Your task to perform on an android device: open app "Viber Messenger" Image 0: 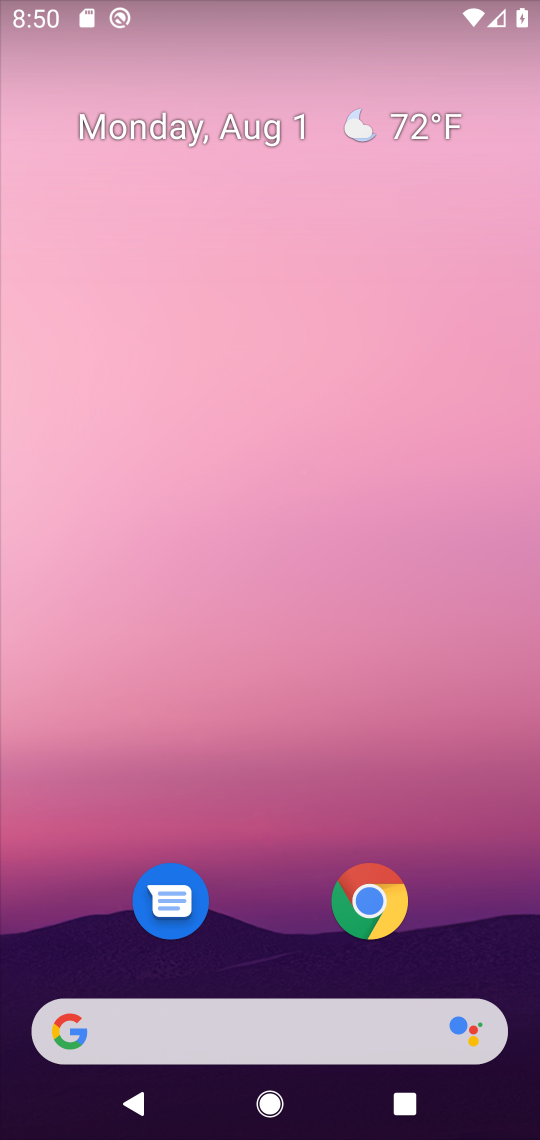
Step 0: drag from (253, 928) to (282, 294)
Your task to perform on an android device: open app "Viber Messenger" Image 1: 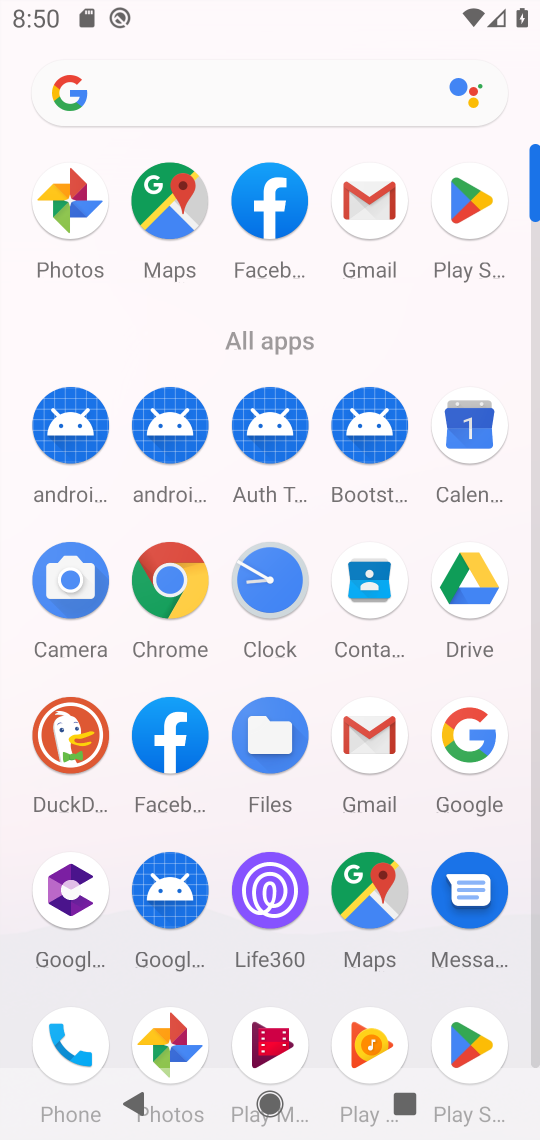
Step 1: drag from (283, 945) to (313, 3)
Your task to perform on an android device: open app "Viber Messenger" Image 2: 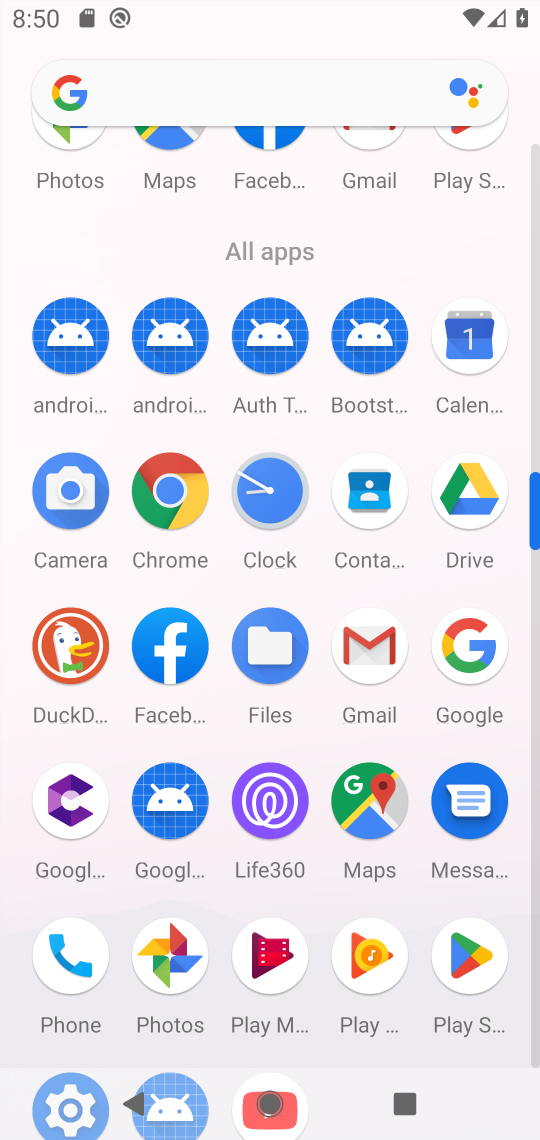
Step 2: click (468, 149)
Your task to perform on an android device: open app "Viber Messenger" Image 3: 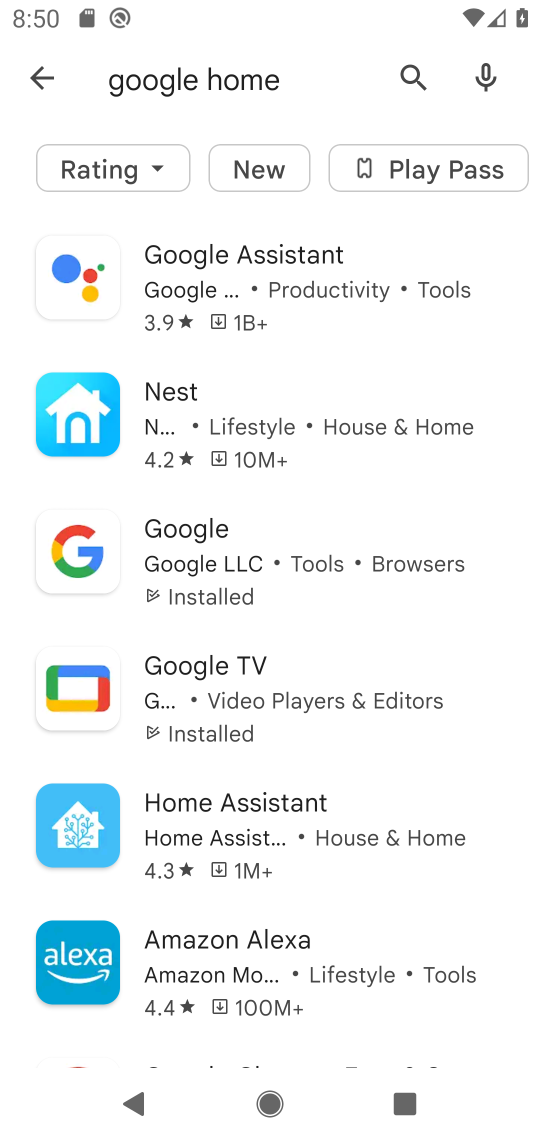
Step 3: click (404, 75)
Your task to perform on an android device: open app "Viber Messenger" Image 4: 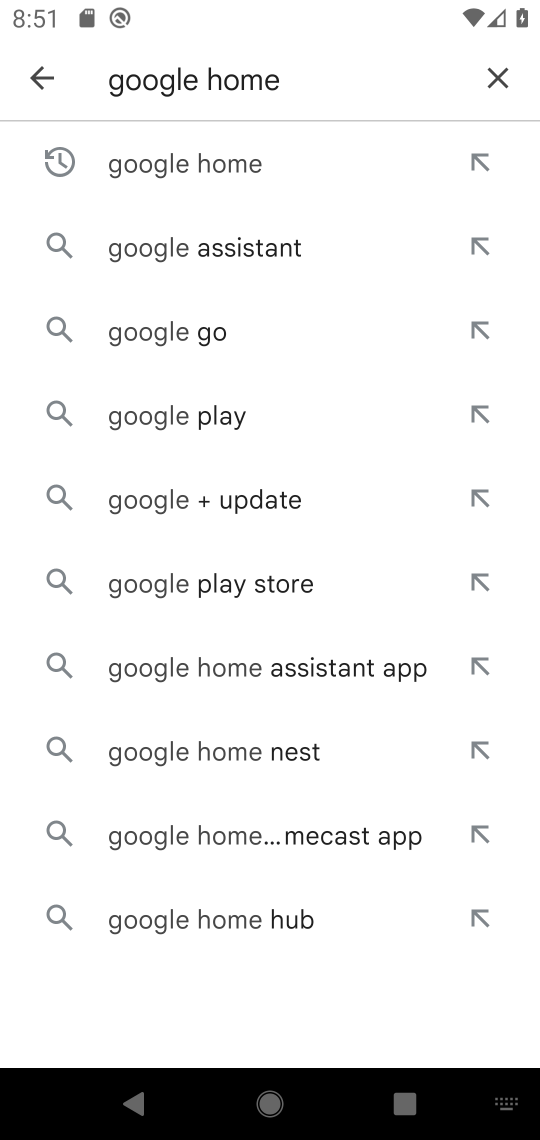
Step 4: click (495, 72)
Your task to perform on an android device: open app "Viber Messenger" Image 5: 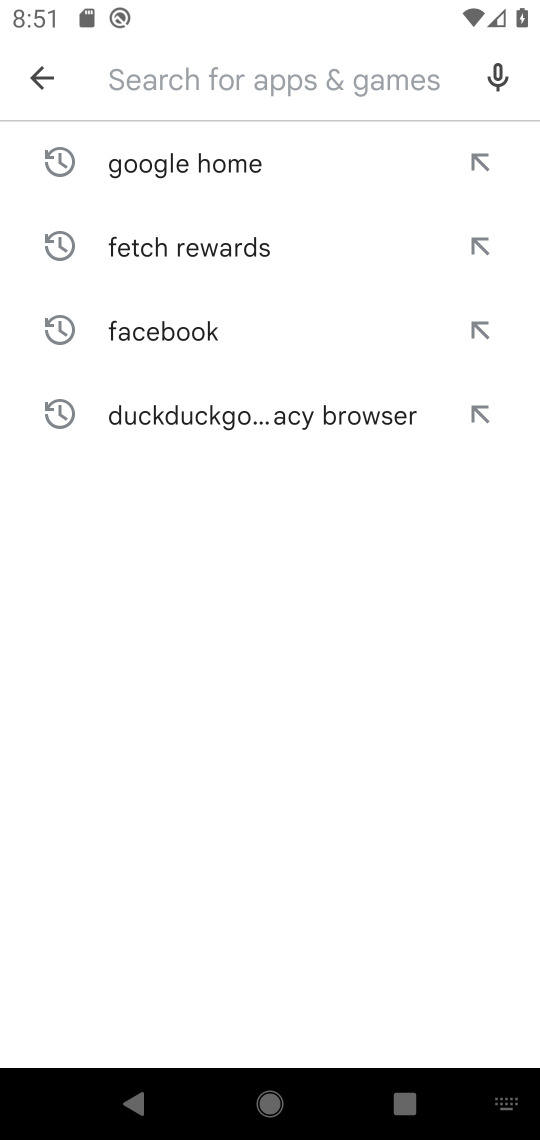
Step 5: type "viber messenger"
Your task to perform on an android device: open app "Viber Messenger" Image 6: 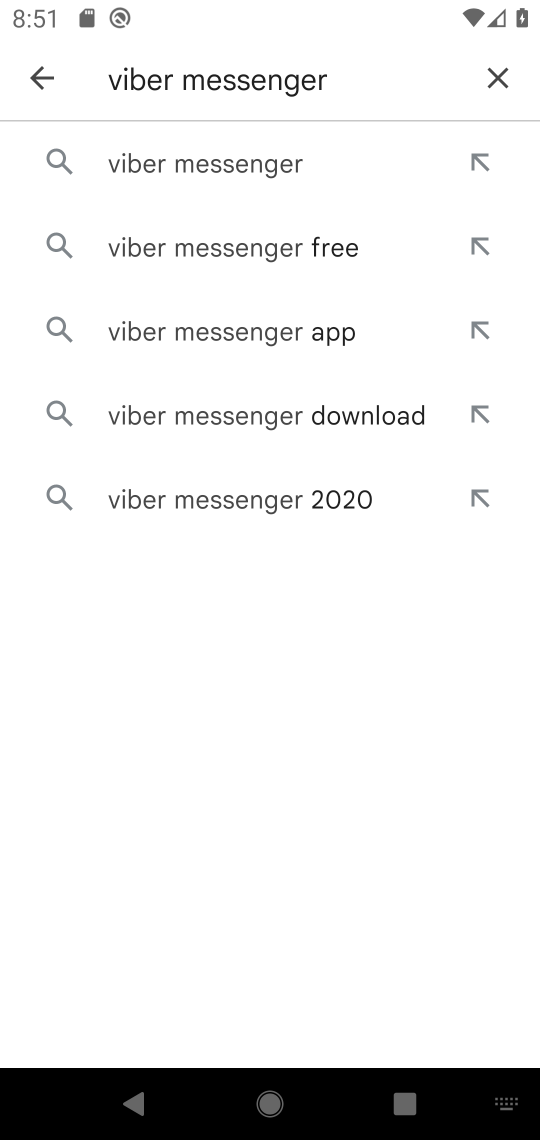
Step 6: click (361, 150)
Your task to perform on an android device: open app "Viber Messenger" Image 7: 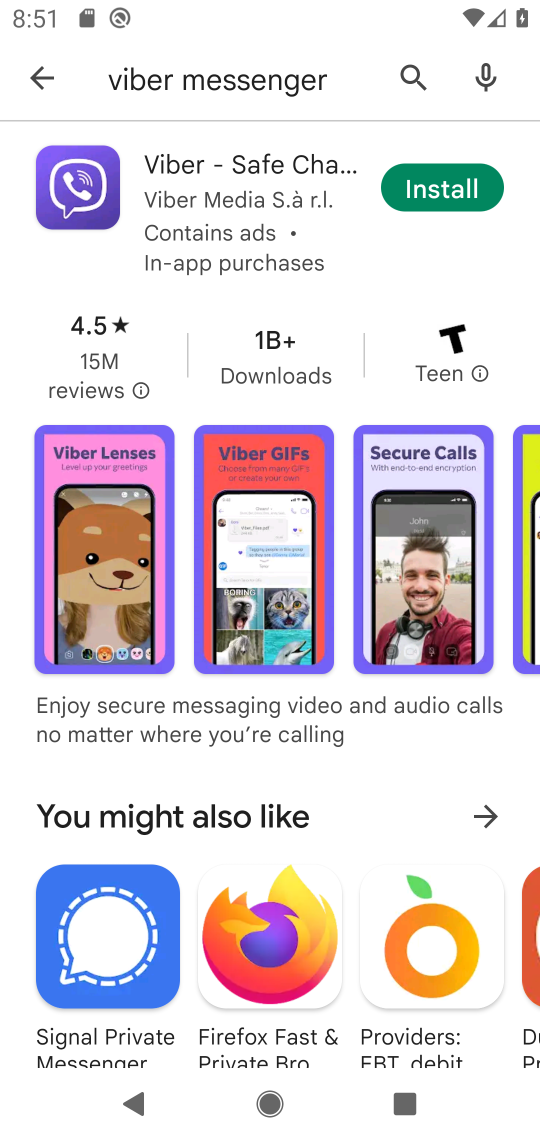
Step 7: click (285, 166)
Your task to perform on an android device: open app "Viber Messenger" Image 8: 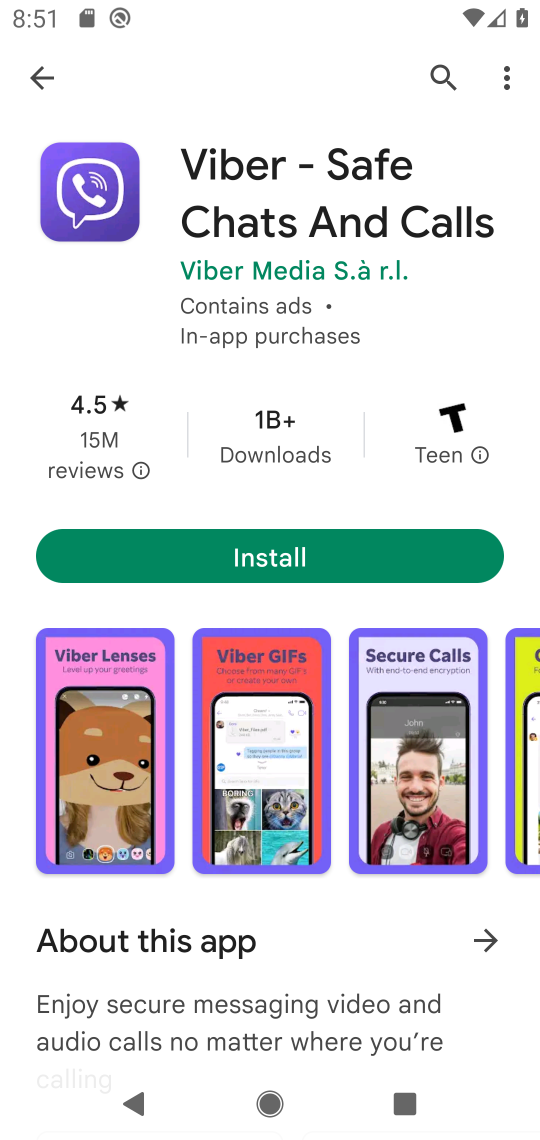
Step 8: task complete